Your task to perform on an android device: turn on notifications settings in the gmail app Image 0: 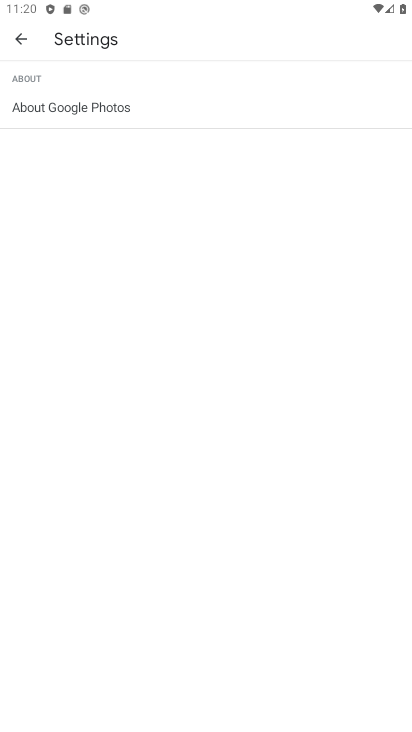
Step 0: click (16, 29)
Your task to perform on an android device: turn on notifications settings in the gmail app Image 1: 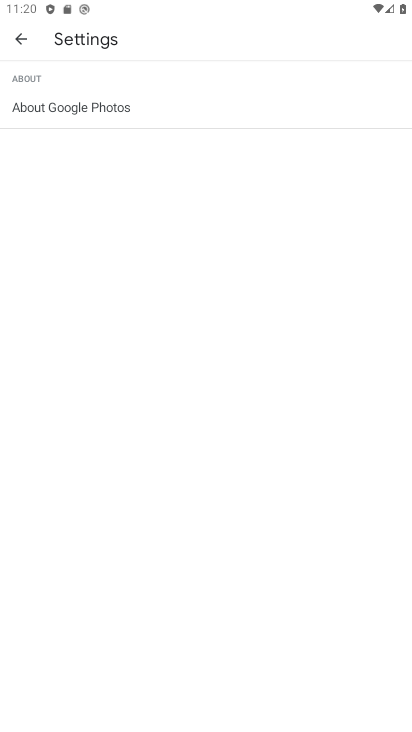
Step 1: click (18, 29)
Your task to perform on an android device: turn on notifications settings in the gmail app Image 2: 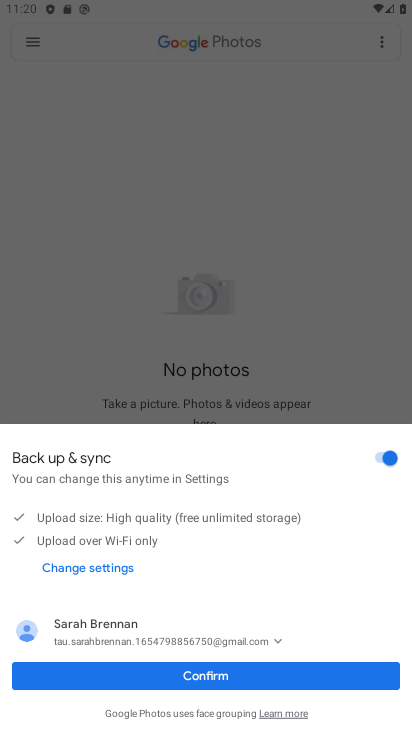
Step 2: click (229, 678)
Your task to perform on an android device: turn on notifications settings in the gmail app Image 3: 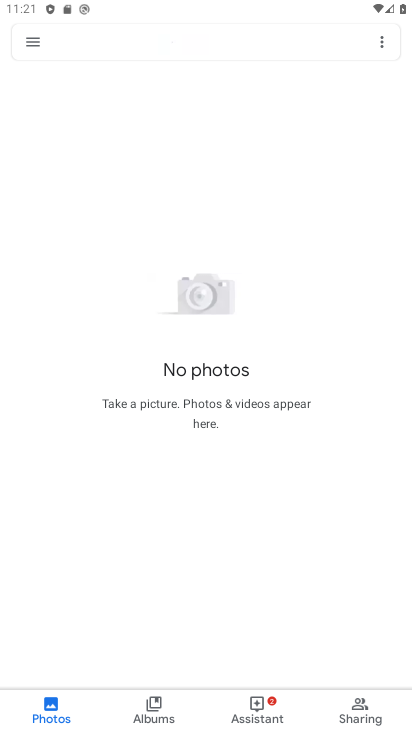
Step 3: press back button
Your task to perform on an android device: turn on notifications settings in the gmail app Image 4: 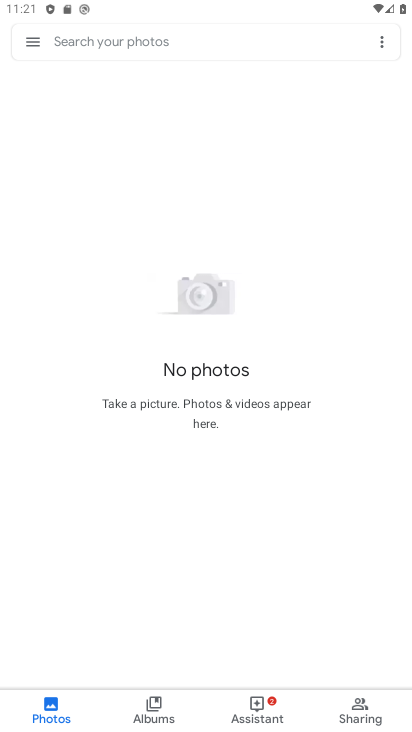
Step 4: press back button
Your task to perform on an android device: turn on notifications settings in the gmail app Image 5: 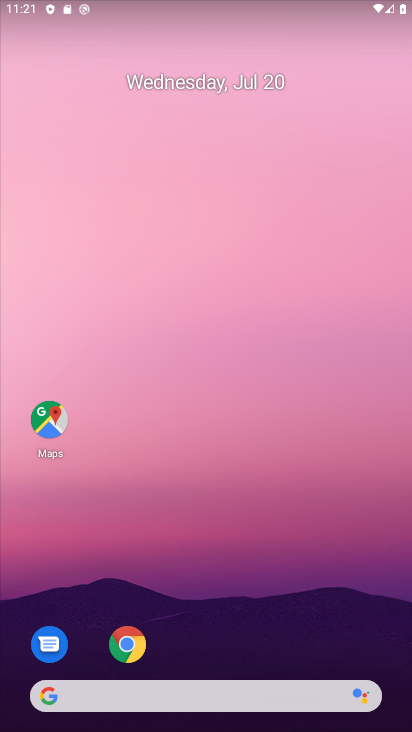
Step 5: drag from (221, 490) to (182, 125)
Your task to perform on an android device: turn on notifications settings in the gmail app Image 6: 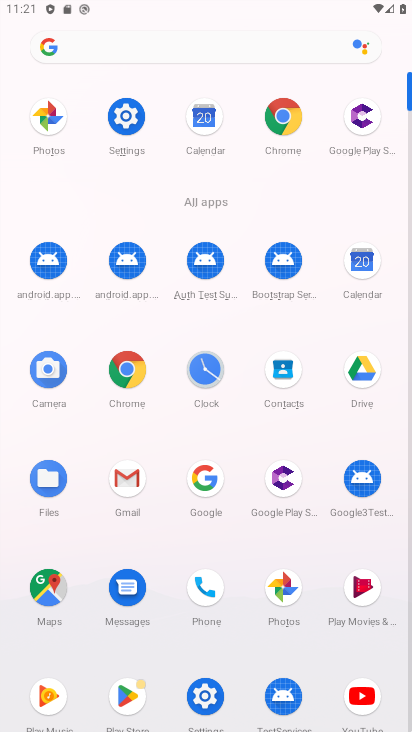
Step 6: click (117, 469)
Your task to perform on an android device: turn on notifications settings in the gmail app Image 7: 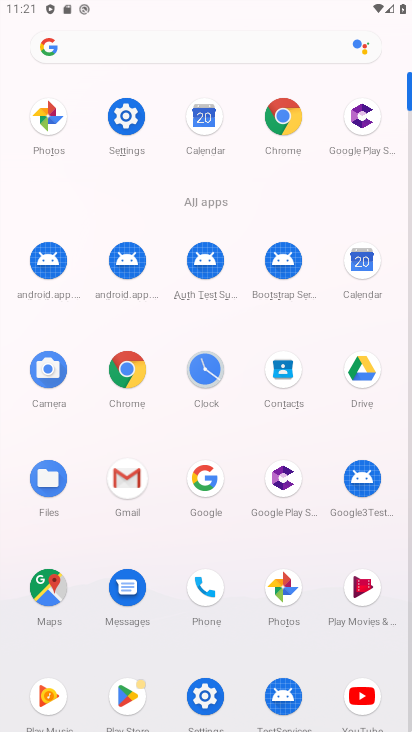
Step 7: click (120, 477)
Your task to perform on an android device: turn on notifications settings in the gmail app Image 8: 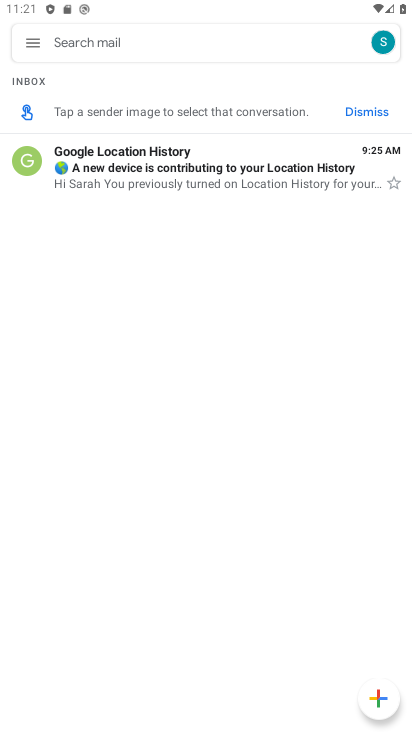
Step 8: click (36, 51)
Your task to perform on an android device: turn on notifications settings in the gmail app Image 9: 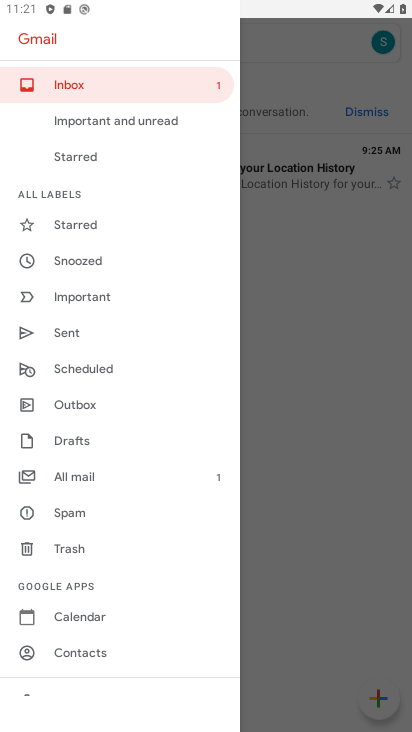
Step 9: drag from (80, 575) to (95, 215)
Your task to perform on an android device: turn on notifications settings in the gmail app Image 10: 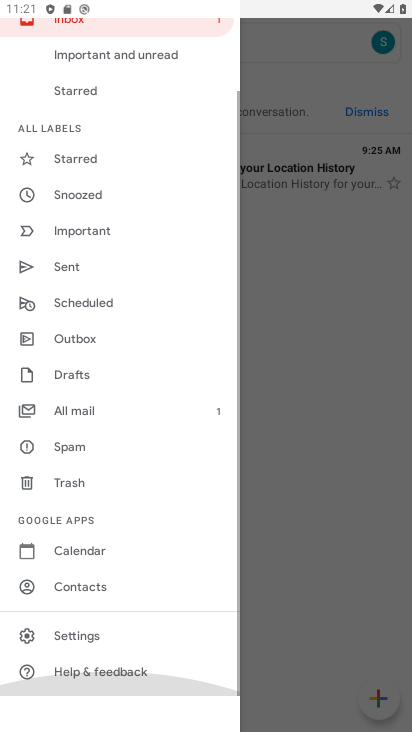
Step 10: drag from (94, 480) to (109, 191)
Your task to perform on an android device: turn on notifications settings in the gmail app Image 11: 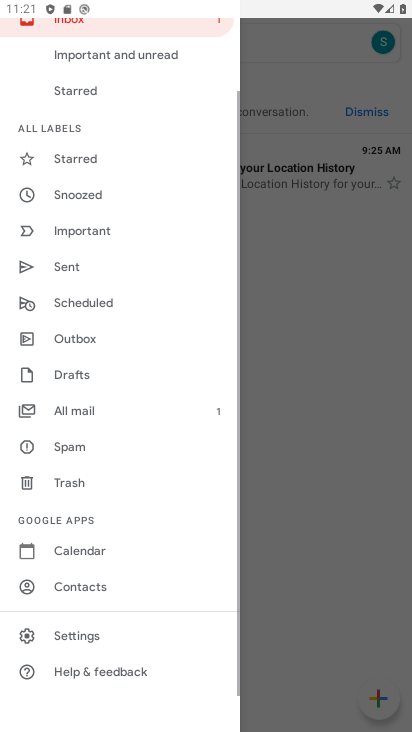
Step 11: click (74, 624)
Your task to perform on an android device: turn on notifications settings in the gmail app Image 12: 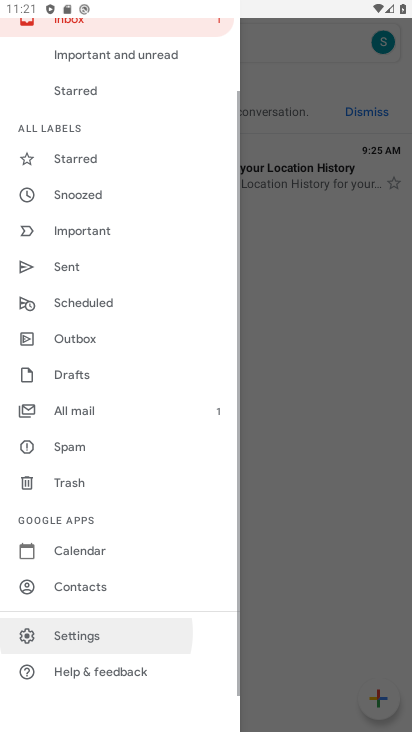
Step 12: click (76, 626)
Your task to perform on an android device: turn on notifications settings in the gmail app Image 13: 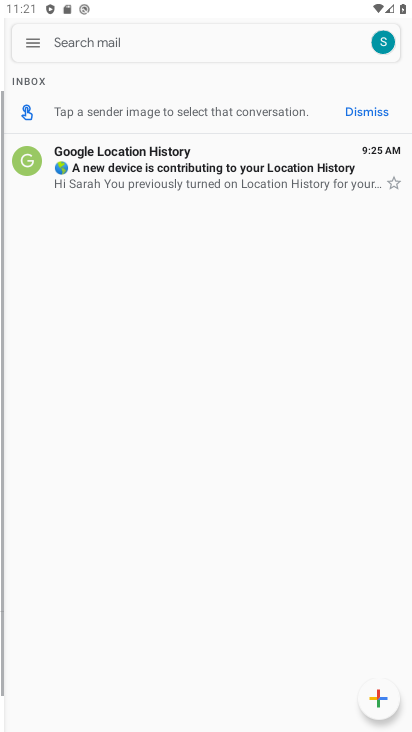
Step 13: click (76, 626)
Your task to perform on an android device: turn on notifications settings in the gmail app Image 14: 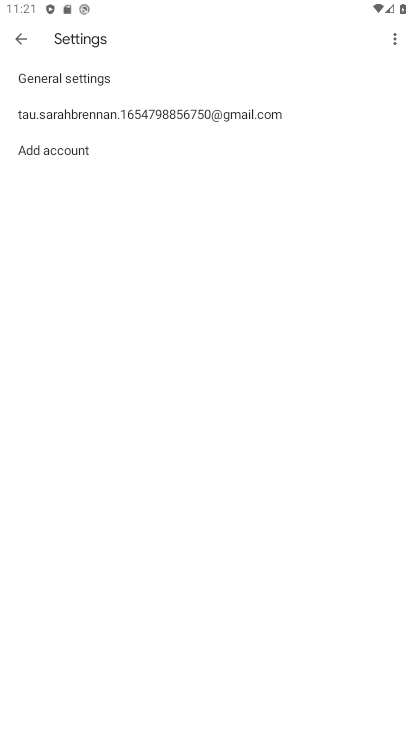
Step 14: click (123, 105)
Your task to perform on an android device: turn on notifications settings in the gmail app Image 15: 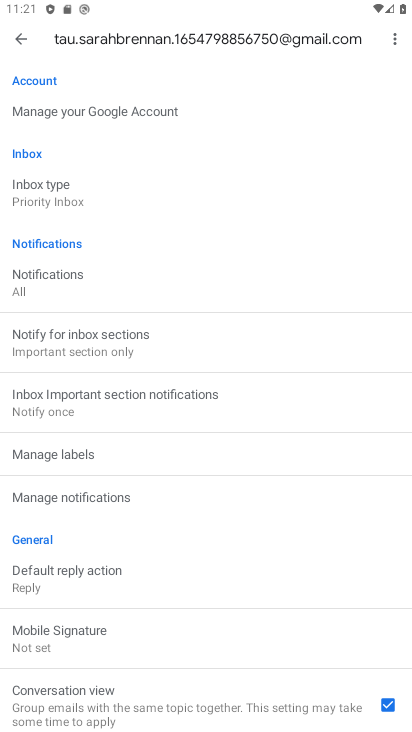
Step 15: click (42, 265)
Your task to perform on an android device: turn on notifications settings in the gmail app Image 16: 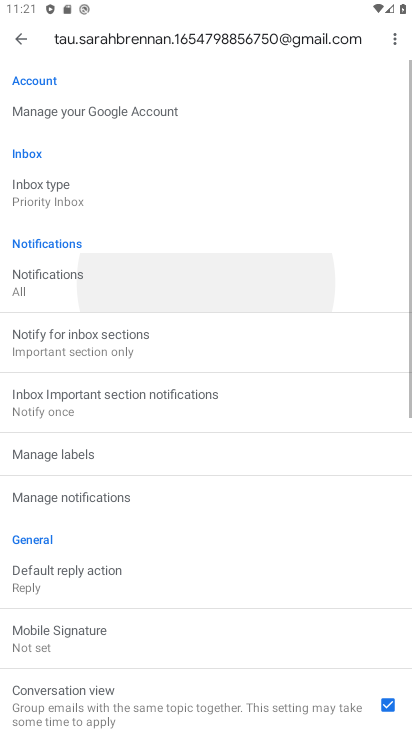
Step 16: click (42, 265)
Your task to perform on an android device: turn on notifications settings in the gmail app Image 17: 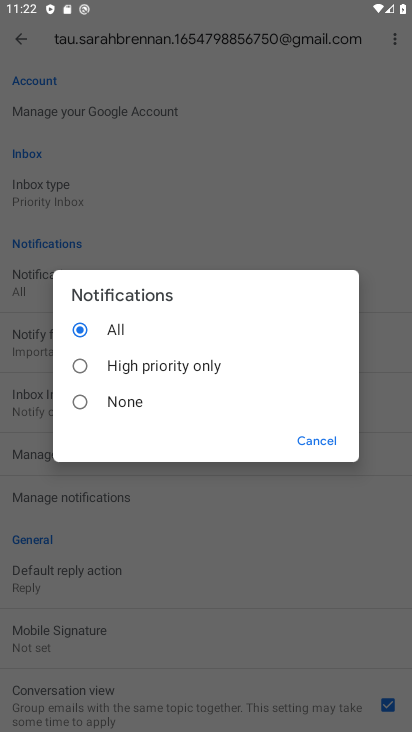
Step 17: click (76, 371)
Your task to perform on an android device: turn on notifications settings in the gmail app Image 18: 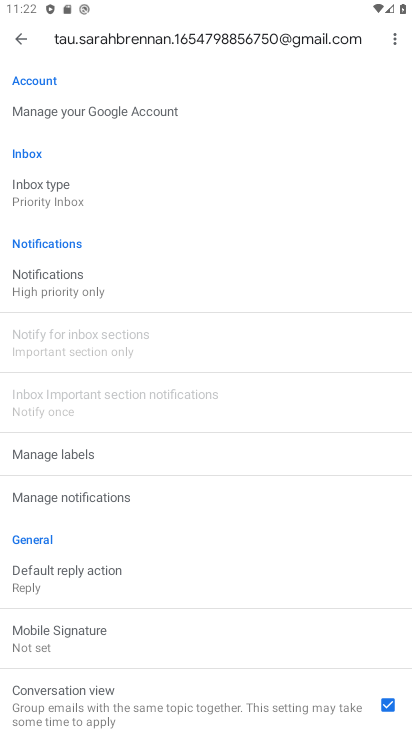
Step 18: click (29, 281)
Your task to perform on an android device: turn on notifications settings in the gmail app Image 19: 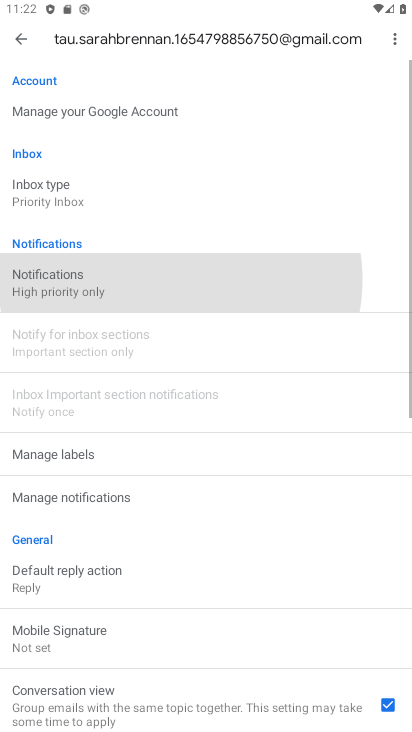
Step 19: click (29, 281)
Your task to perform on an android device: turn on notifications settings in the gmail app Image 20: 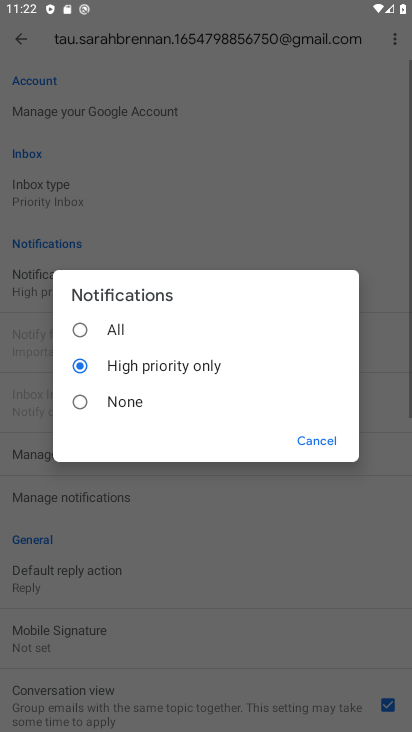
Step 20: click (83, 316)
Your task to perform on an android device: turn on notifications settings in the gmail app Image 21: 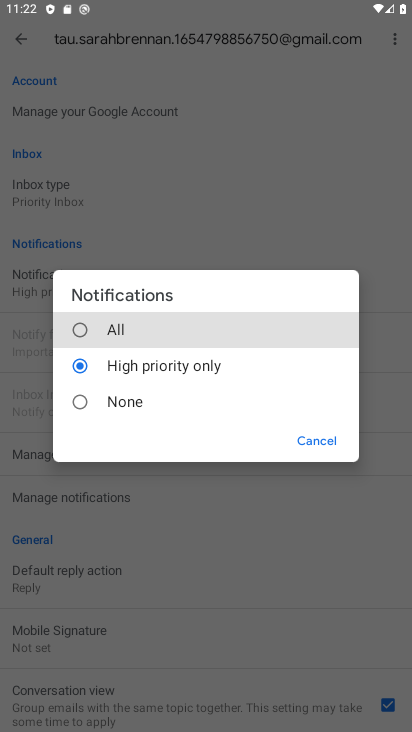
Step 21: click (80, 322)
Your task to perform on an android device: turn on notifications settings in the gmail app Image 22: 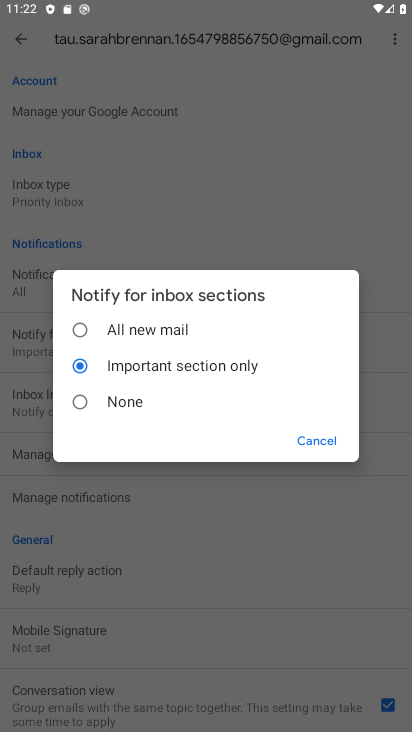
Step 22: click (77, 328)
Your task to perform on an android device: turn on notifications settings in the gmail app Image 23: 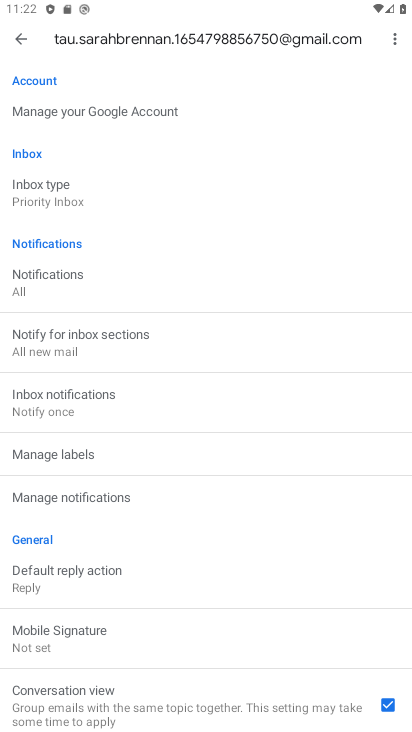
Step 23: task complete